Your task to perform on an android device: Open calendar and show me the fourth week of next month Image 0: 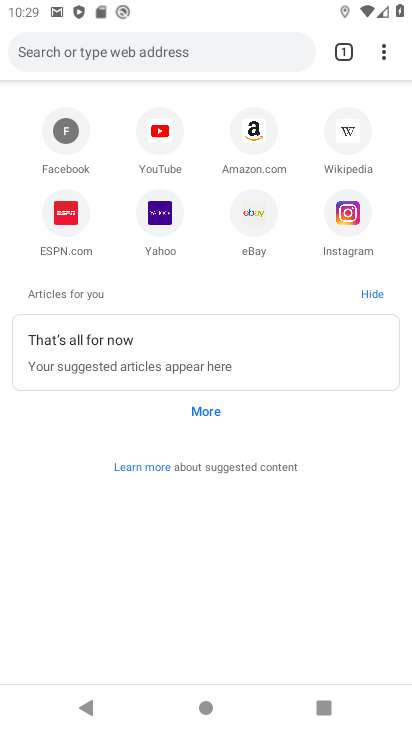
Step 0: press home button
Your task to perform on an android device: Open calendar and show me the fourth week of next month Image 1: 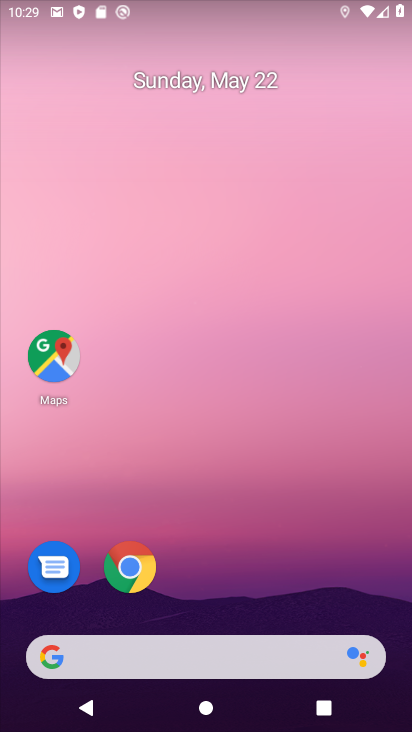
Step 1: drag from (313, 533) to (369, 123)
Your task to perform on an android device: Open calendar and show me the fourth week of next month Image 2: 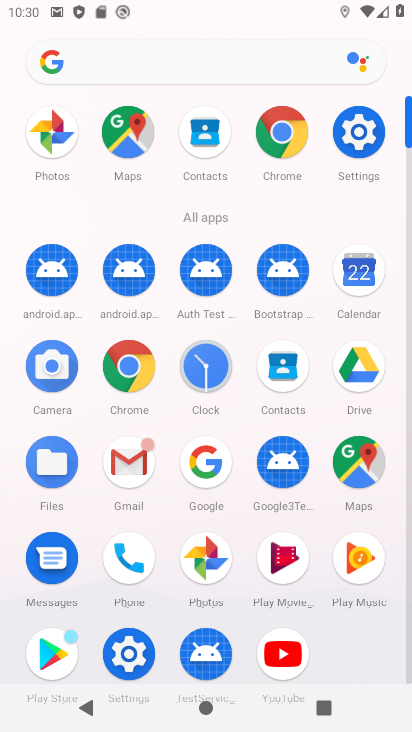
Step 2: click (365, 276)
Your task to perform on an android device: Open calendar and show me the fourth week of next month Image 3: 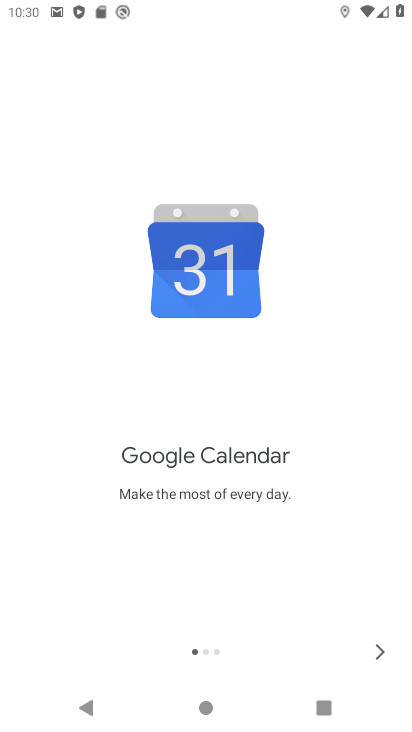
Step 3: click (383, 651)
Your task to perform on an android device: Open calendar and show me the fourth week of next month Image 4: 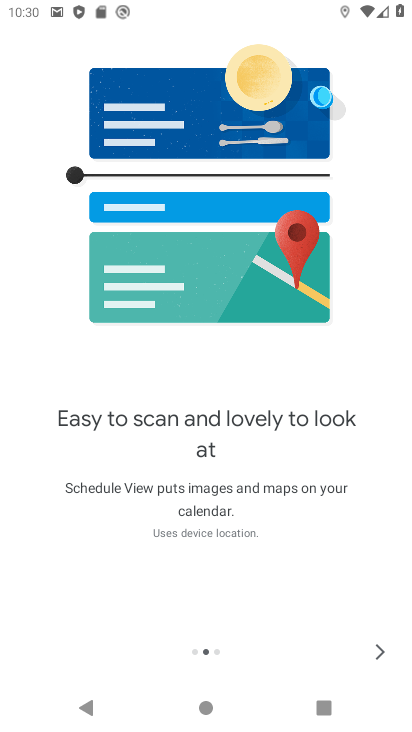
Step 4: click (382, 642)
Your task to perform on an android device: Open calendar and show me the fourth week of next month Image 5: 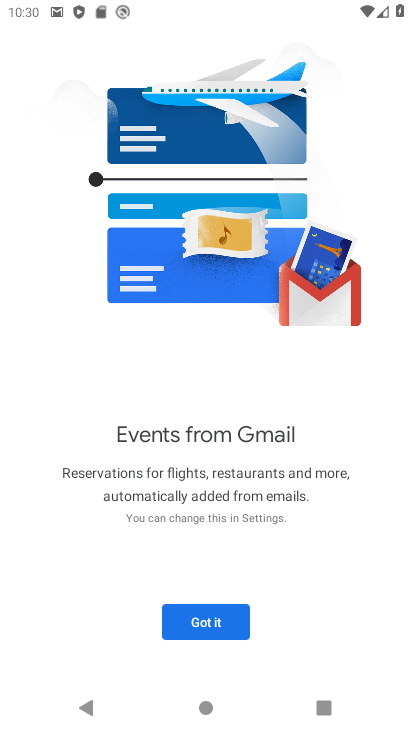
Step 5: click (220, 623)
Your task to perform on an android device: Open calendar and show me the fourth week of next month Image 6: 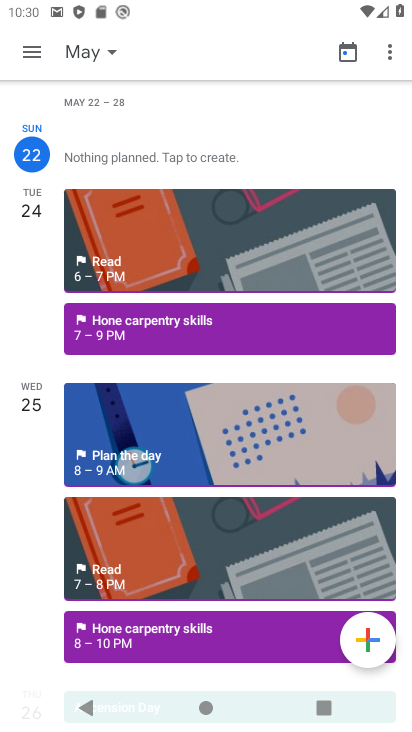
Step 6: click (83, 55)
Your task to perform on an android device: Open calendar and show me the fourth week of next month Image 7: 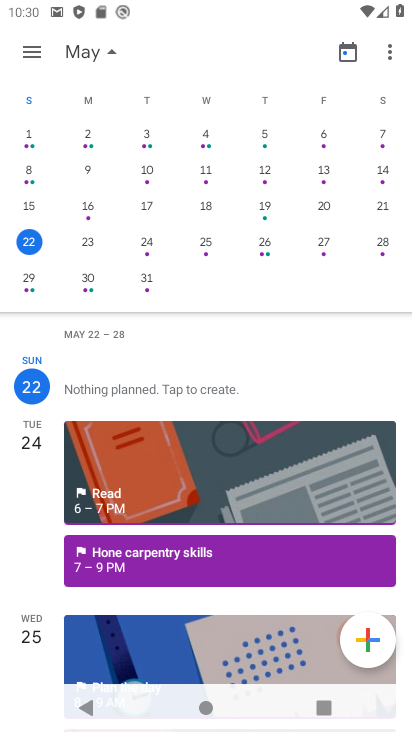
Step 7: drag from (353, 191) to (23, 160)
Your task to perform on an android device: Open calendar and show me the fourth week of next month Image 8: 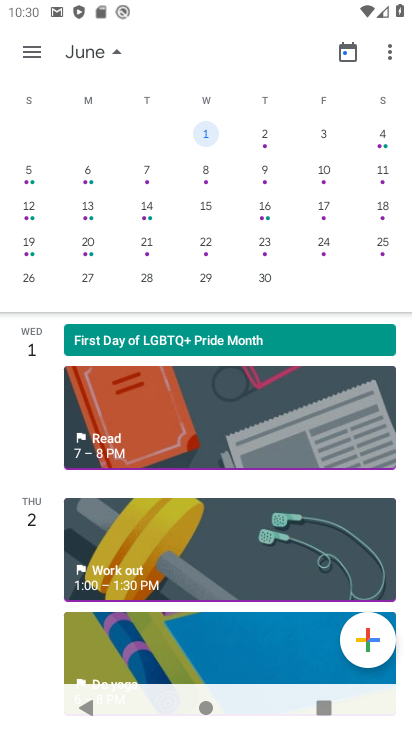
Step 8: click (30, 245)
Your task to perform on an android device: Open calendar and show me the fourth week of next month Image 9: 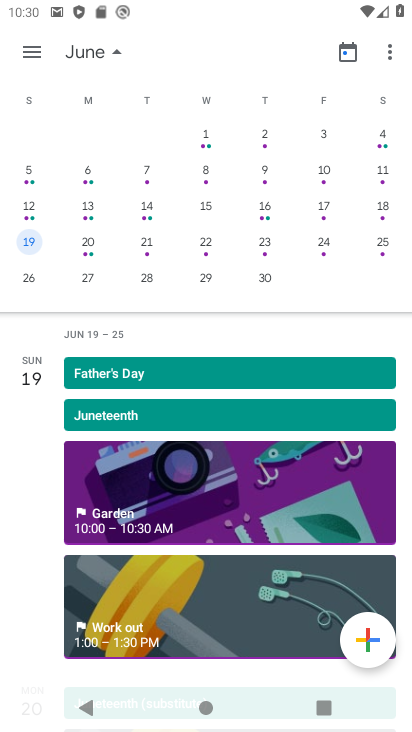
Step 9: task complete